Your task to perform on an android device: toggle translation in the chrome app Image 0: 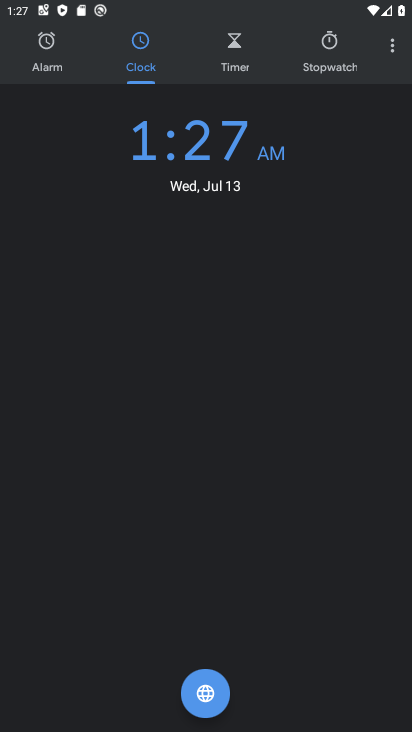
Step 0: press home button
Your task to perform on an android device: toggle translation in the chrome app Image 1: 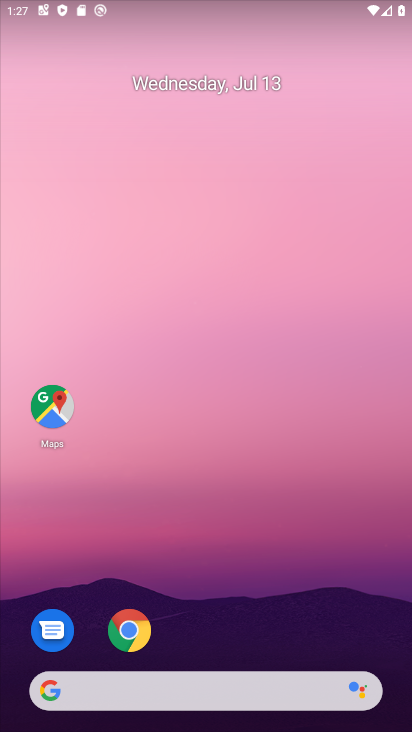
Step 1: drag from (357, 629) to (343, 72)
Your task to perform on an android device: toggle translation in the chrome app Image 2: 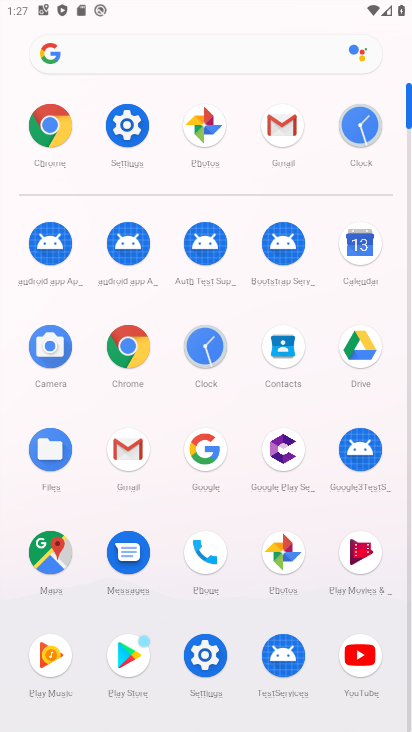
Step 2: click (129, 349)
Your task to perform on an android device: toggle translation in the chrome app Image 3: 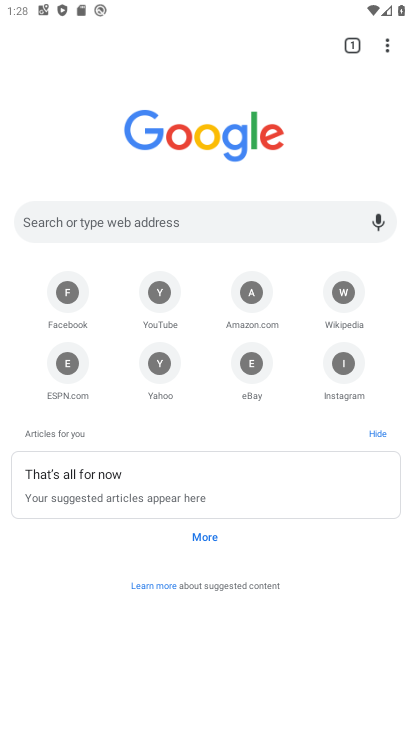
Step 3: click (387, 49)
Your task to perform on an android device: toggle translation in the chrome app Image 4: 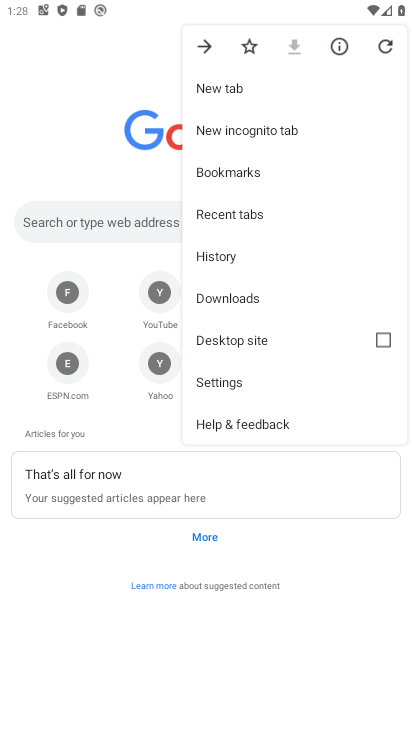
Step 4: click (268, 379)
Your task to perform on an android device: toggle translation in the chrome app Image 5: 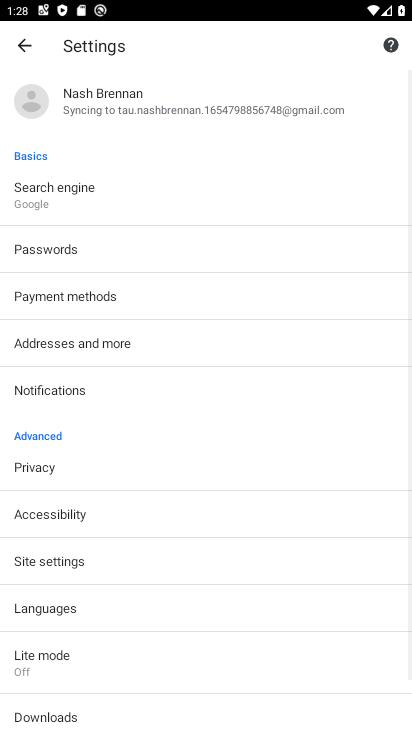
Step 5: drag from (290, 458) to (293, 277)
Your task to perform on an android device: toggle translation in the chrome app Image 6: 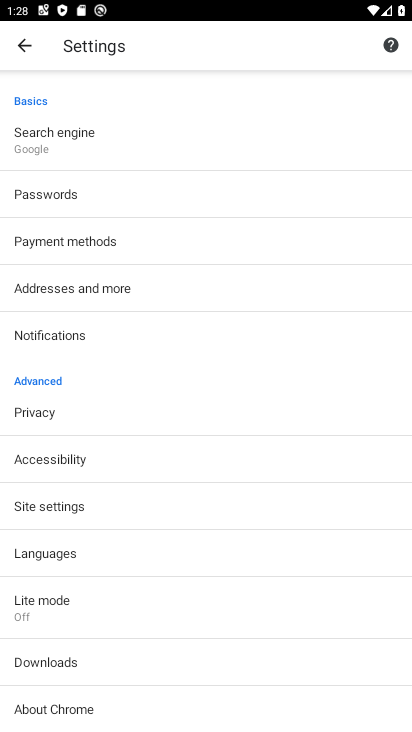
Step 6: click (227, 552)
Your task to perform on an android device: toggle translation in the chrome app Image 7: 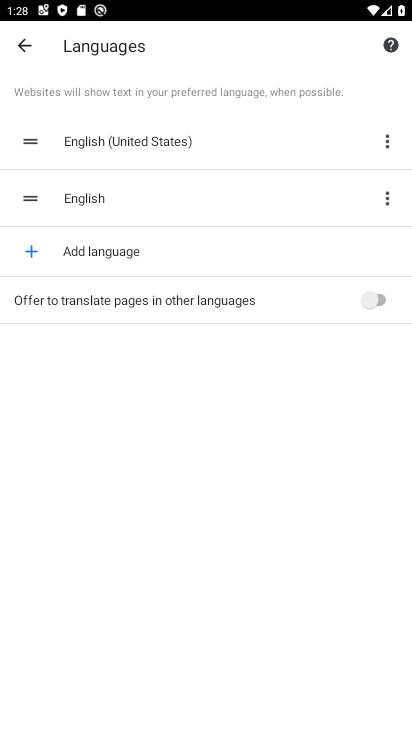
Step 7: click (370, 306)
Your task to perform on an android device: toggle translation in the chrome app Image 8: 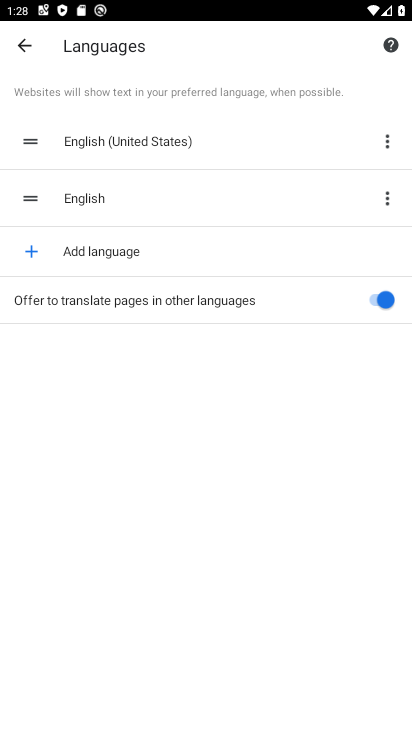
Step 8: task complete